Your task to perform on an android device: toggle priority inbox in the gmail app Image 0: 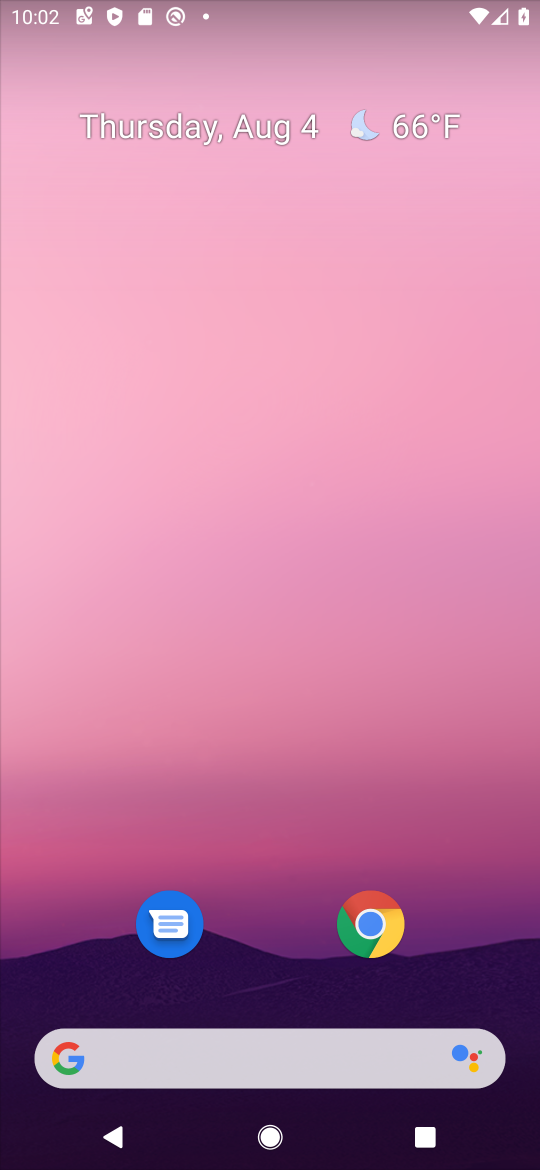
Step 0: drag from (256, 864) to (246, 267)
Your task to perform on an android device: toggle priority inbox in the gmail app Image 1: 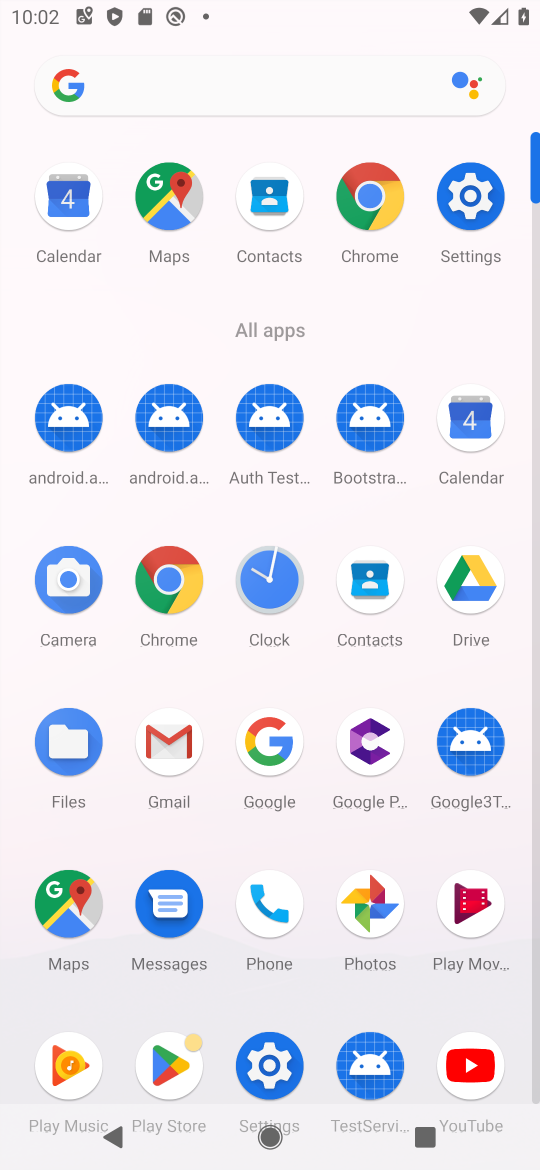
Step 1: click (164, 758)
Your task to perform on an android device: toggle priority inbox in the gmail app Image 2: 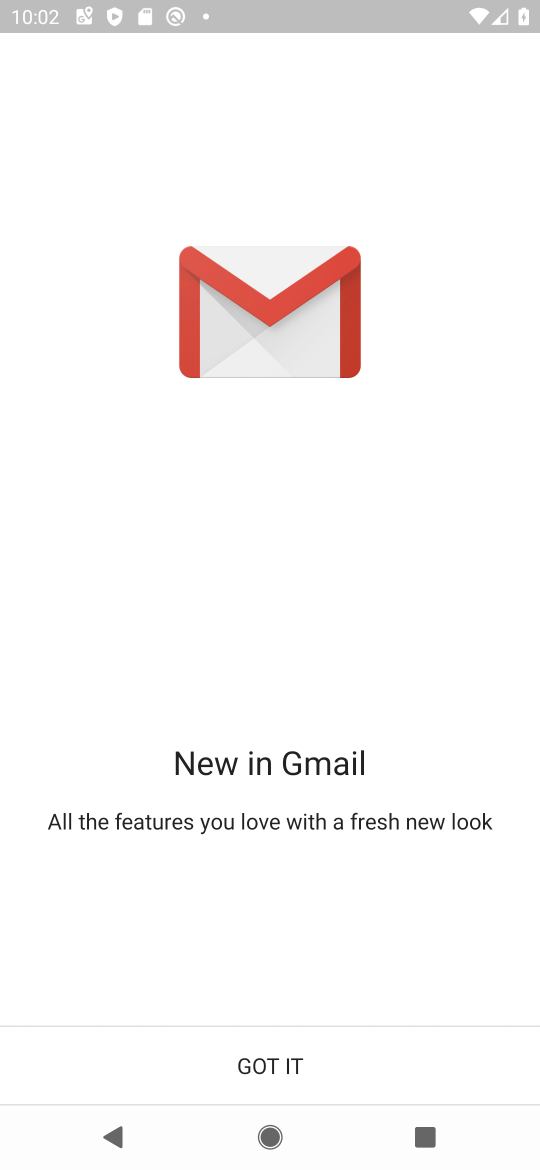
Step 2: click (268, 1066)
Your task to perform on an android device: toggle priority inbox in the gmail app Image 3: 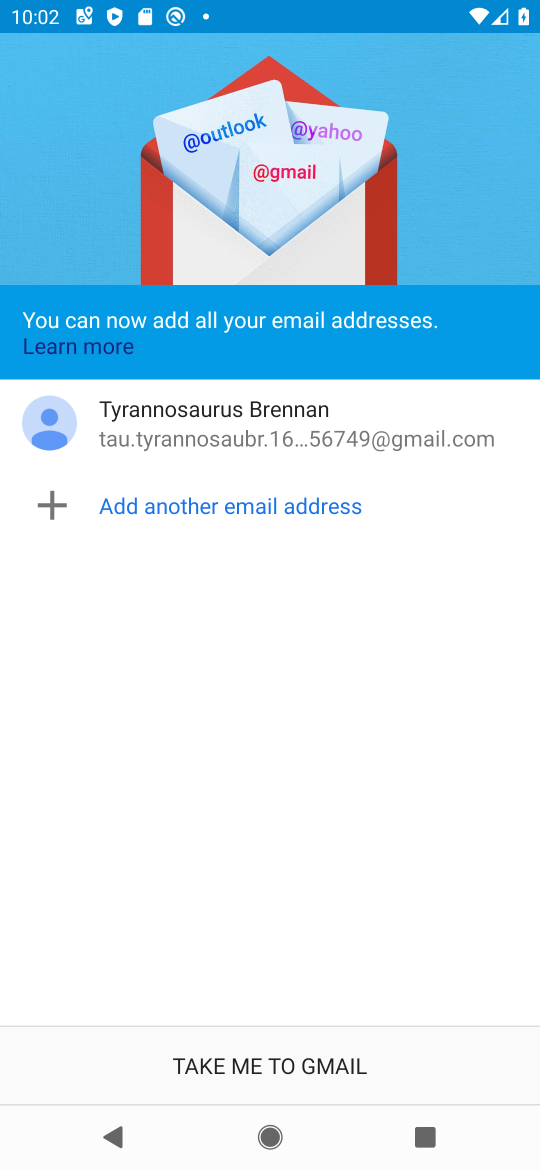
Step 3: click (300, 1079)
Your task to perform on an android device: toggle priority inbox in the gmail app Image 4: 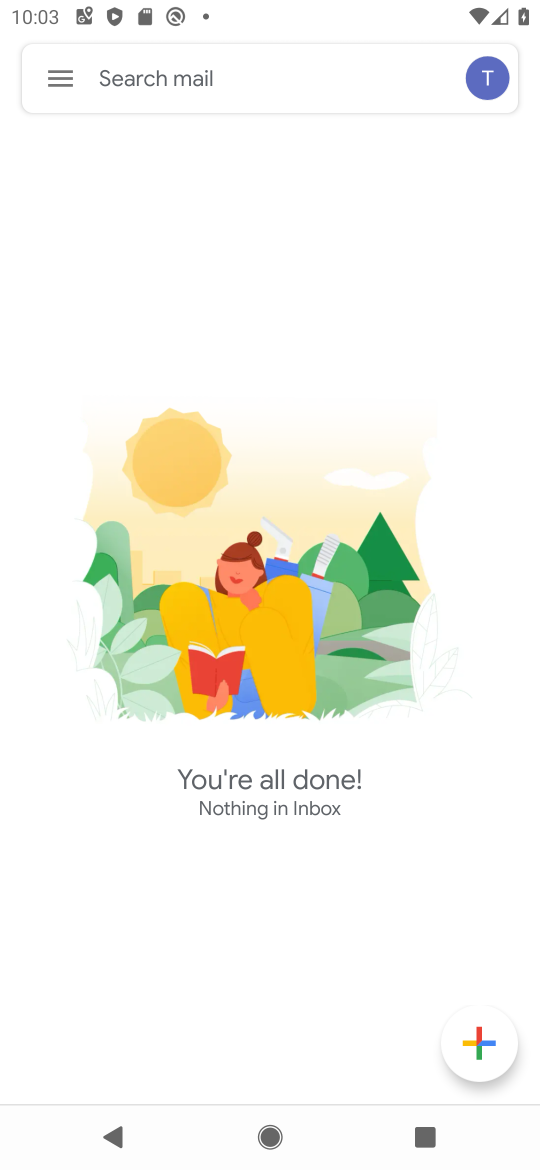
Step 4: task complete